Your task to perform on an android device: turn pop-ups off in chrome Image 0: 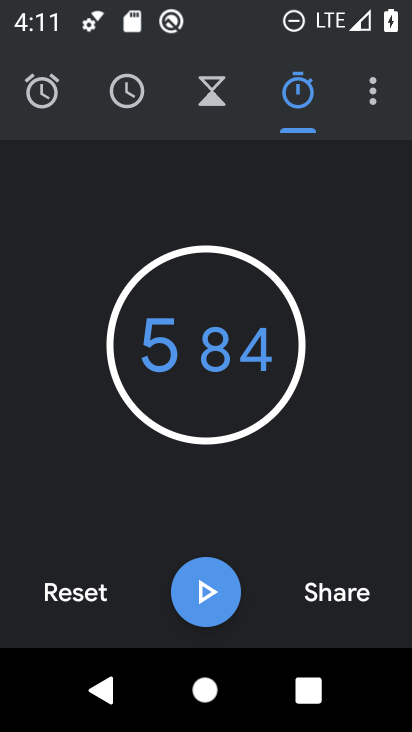
Step 0: press home button
Your task to perform on an android device: turn pop-ups off in chrome Image 1: 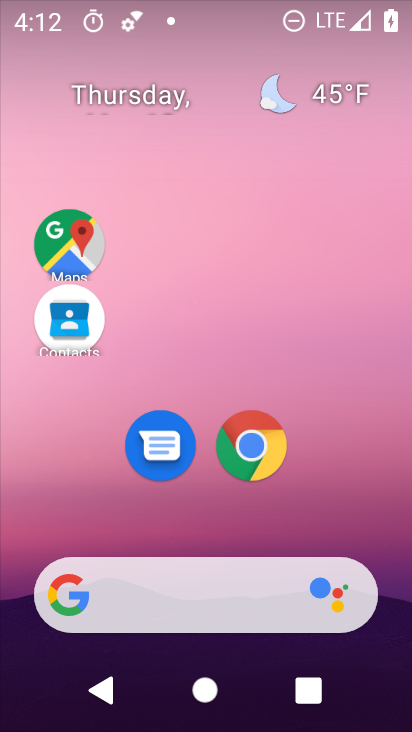
Step 1: click (249, 445)
Your task to perform on an android device: turn pop-ups off in chrome Image 2: 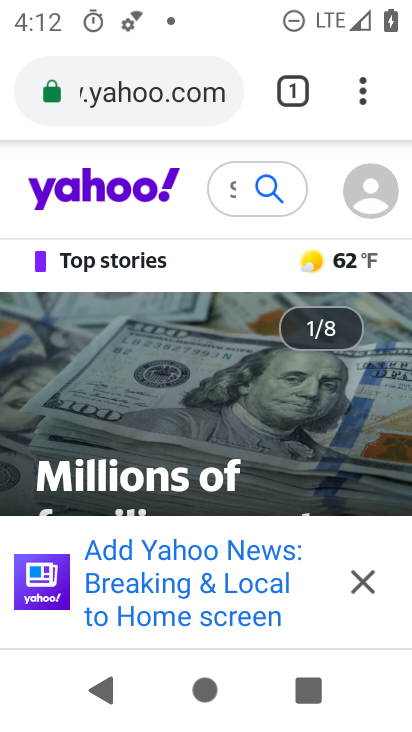
Step 2: click (362, 91)
Your task to perform on an android device: turn pop-ups off in chrome Image 3: 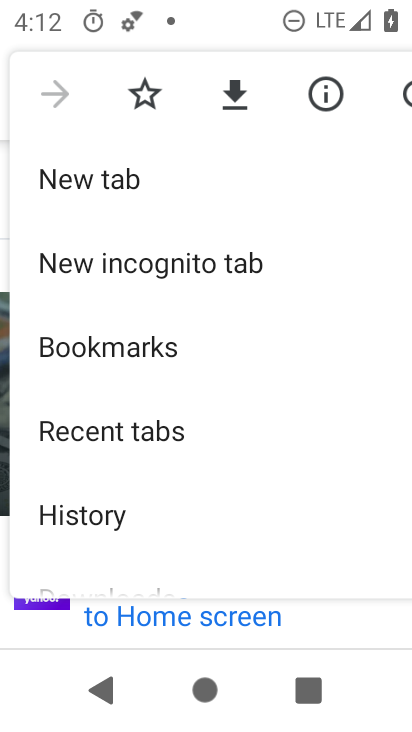
Step 3: drag from (122, 444) to (187, 260)
Your task to perform on an android device: turn pop-ups off in chrome Image 4: 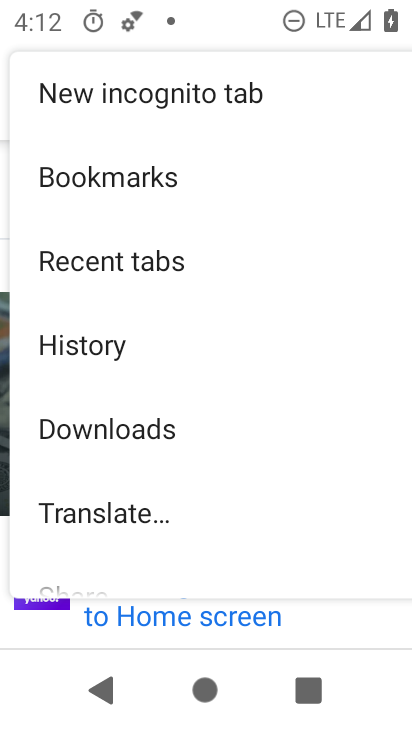
Step 4: drag from (98, 460) to (149, 344)
Your task to perform on an android device: turn pop-ups off in chrome Image 5: 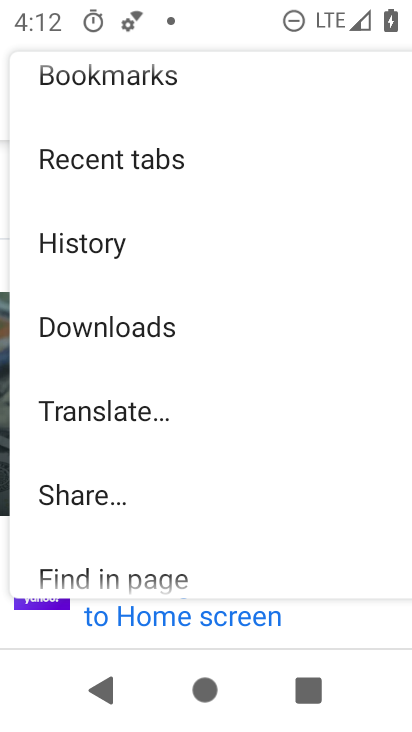
Step 5: drag from (80, 452) to (175, 339)
Your task to perform on an android device: turn pop-ups off in chrome Image 6: 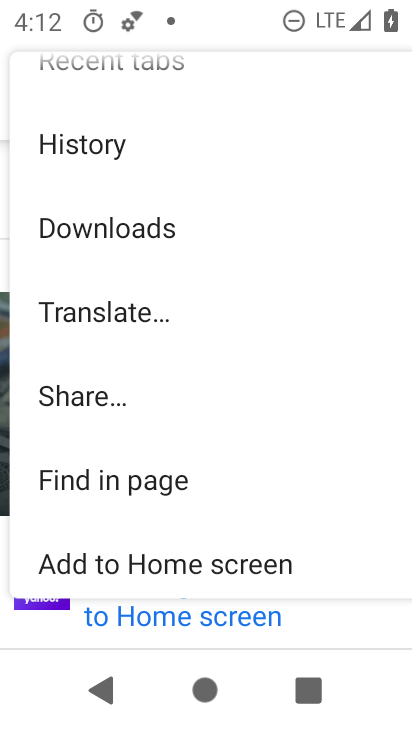
Step 6: drag from (83, 511) to (148, 346)
Your task to perform on an android device: turn pop-ups off in chrome Image 7: 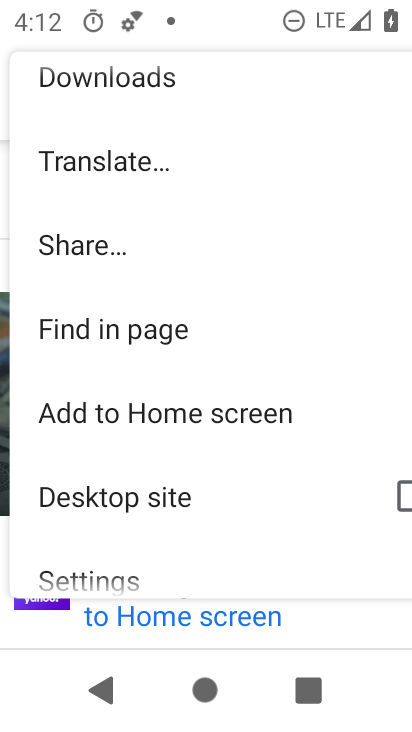
Step 7: drag from (92, 463) to (176, 310)
Your task to perform on an android device: turn pop-ups off in chrome Image 8: 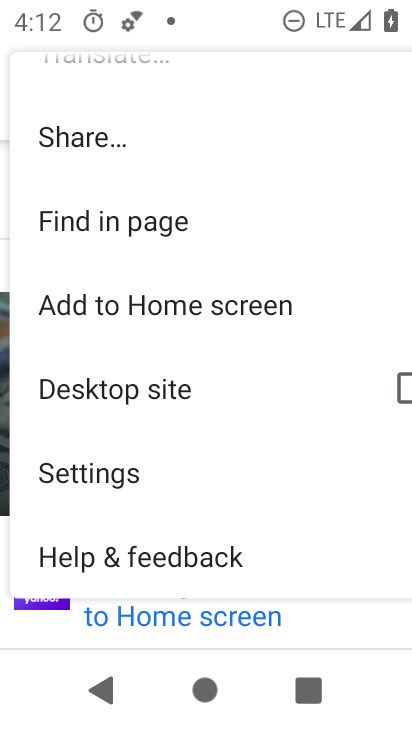
Step 8: click (113, 468)
Your task to perform on an android device: turn pop-ups off in chrome Image 9: 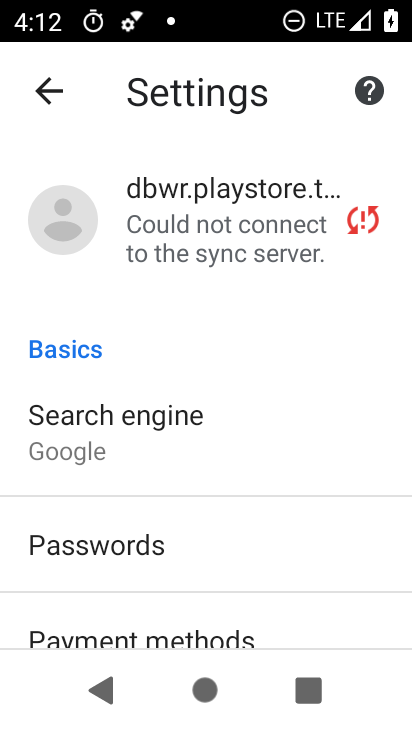
Step 9: drag from (153, 445) to (212, 334)
Your task to perform on an android device: turn pop-ups off in chrome Image 10: 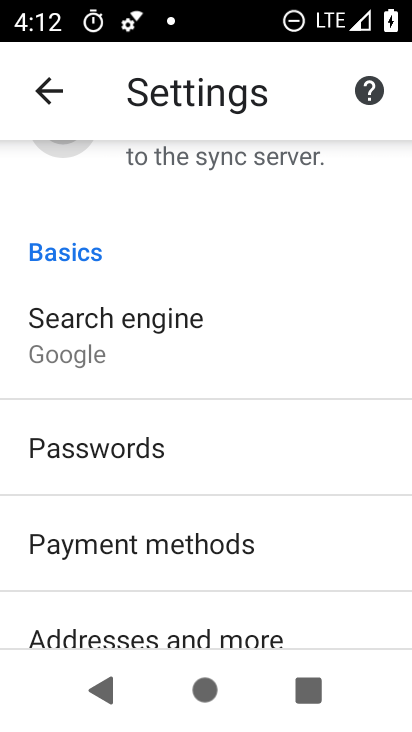
Step 10: drag from (125, 511) to (201, 371)
Your task to perform on an android device: turn pop-ups off in chrome Image 11: 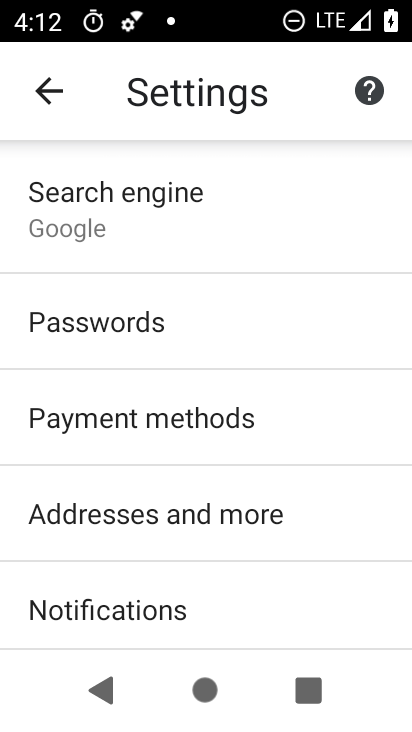
Step 11: drag from (121, 562) to (203, 394)
Your task to perform on an android device: turn pop-ups off in chrome Image 12: 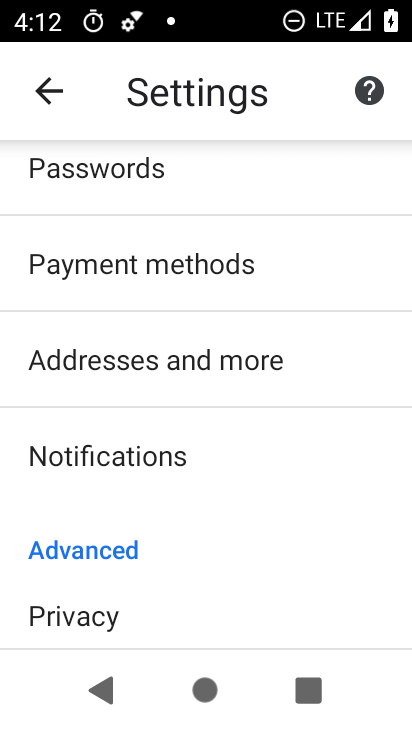
Step 12: drag from (110, 520) to (194, 410)
Your task to perform on an android device: turn pop-ups off in chrome Image 13: 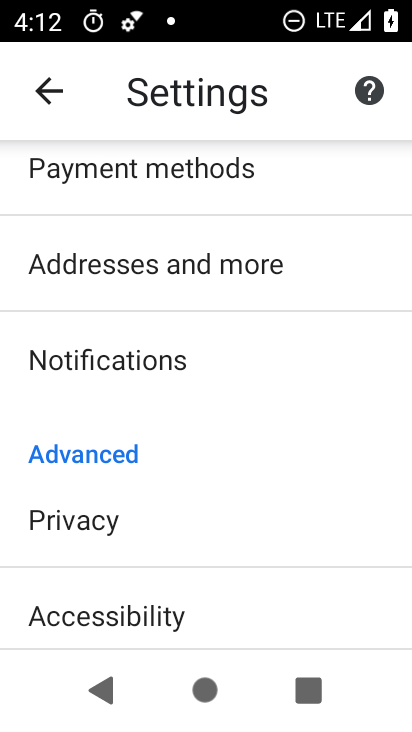
Step 13: drag from (112, 574) to (235, 422)
Your task to perform on an android device: turn pop-ups off in chrome Image 14: 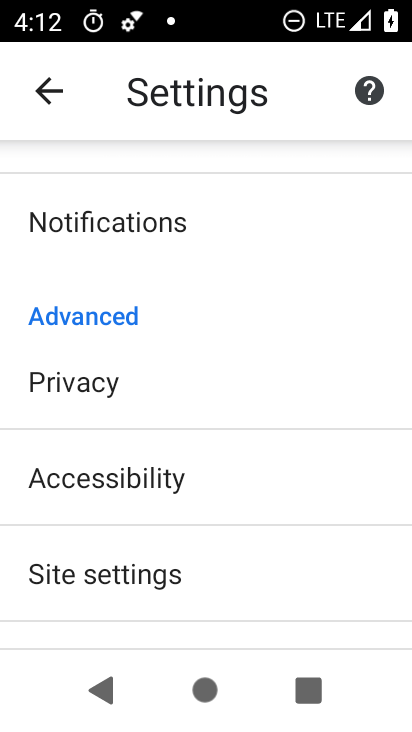
Step 14: drag from (110, 558) to (220, 437)
Your task to perform on an android device: turn pop-ups off in chrome Image 15: 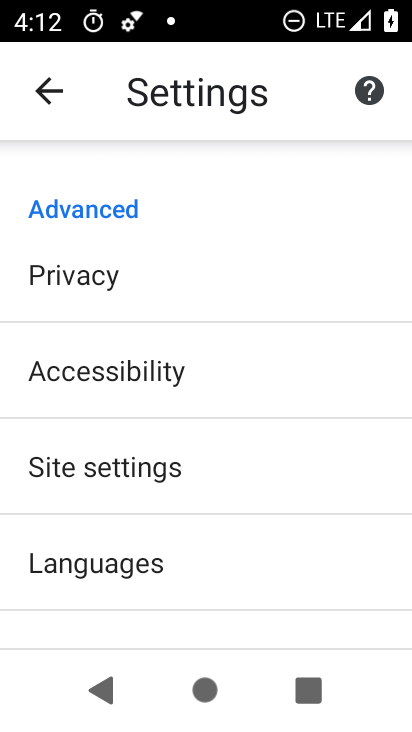
Step 15: drag from (149, 524) to (241, 421)
Your task to perform on an android device: turn pop-ups off in chrome Image 16: 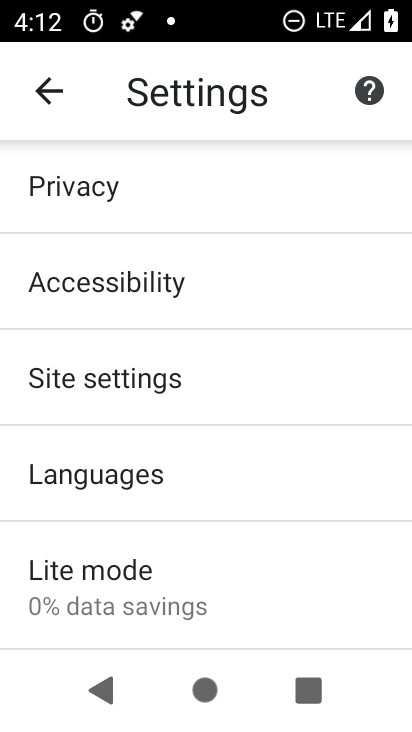
Step 16: drag from (202, 597) to (264, 483)
Your task to perform on an android device: turn pop-ups off in chrome Image 17: 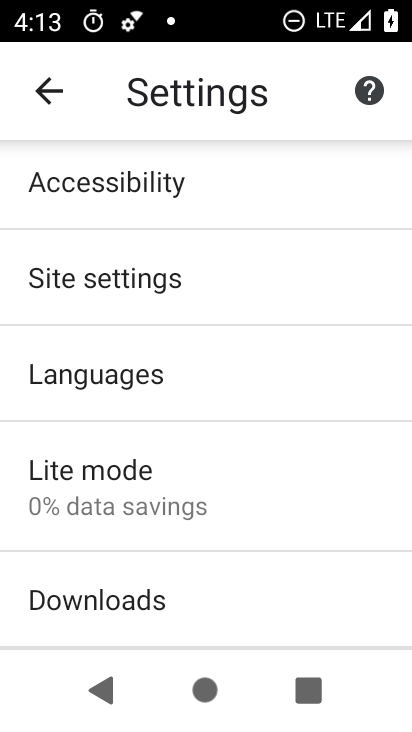
Step 17: click (139, 280)
Your task to perform on an android device: turn pop-ups off in chrome Image 18: 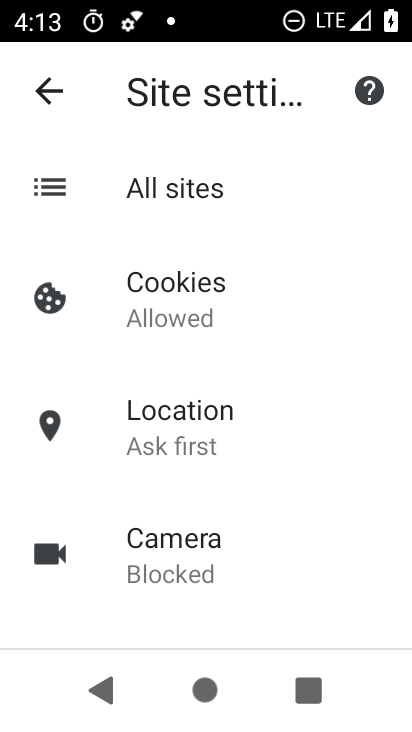
Step 18: drag from (184, 501) to (269, 369)
Your task to perform on an android device: turn pop-ups off in chrome Image 19: 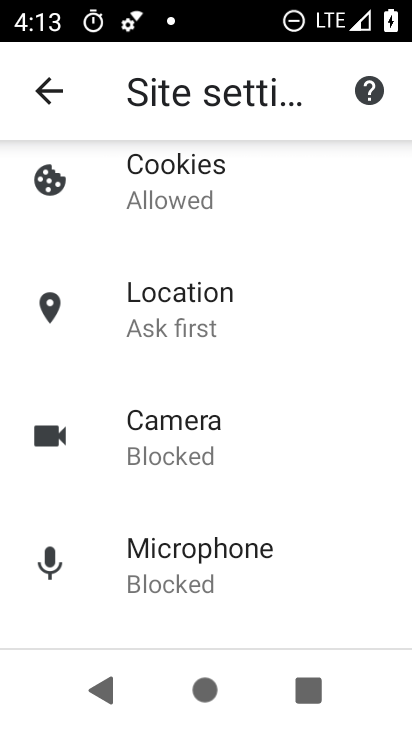
Step 19: drag from (194, 517) to (296, 376)
Your task to perform on an android device: turn pop-ups off in chrome Image 20: 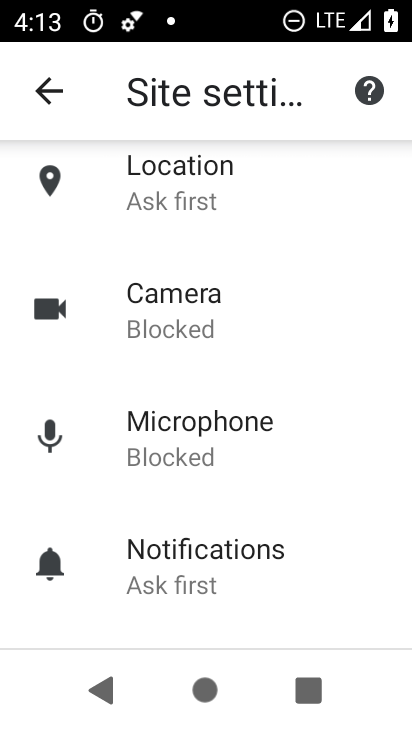
Step 20: drag from (187, 531) to (277, 381)
Your task to perform on an android device: turn pop-ups off in chrome Image 21: 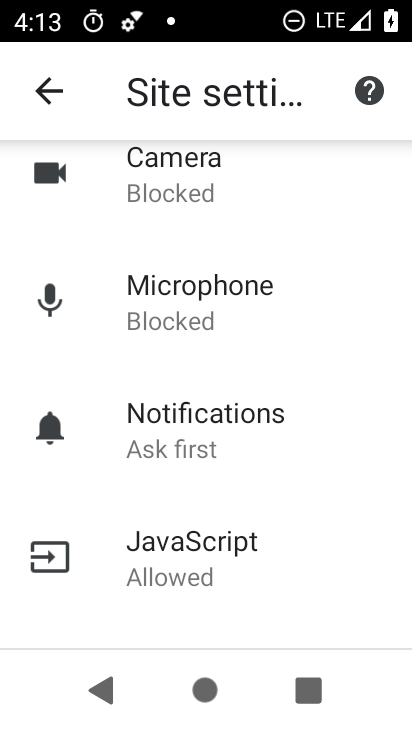
Step 21: drag from (217, 489) to (311, 349)
Your task to perform on an android device: turn pop-ups off in chrome Image 22: 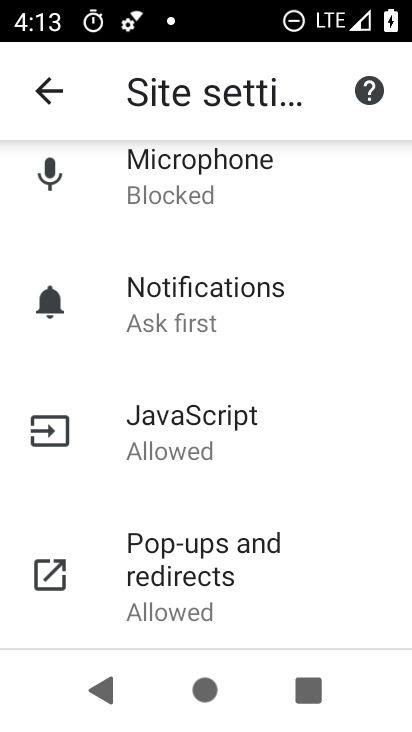
Step 22: drag from (187, 484) to (275, 337)
Your task to perform on an android device: turn pop-ups off in chrome Image 23: 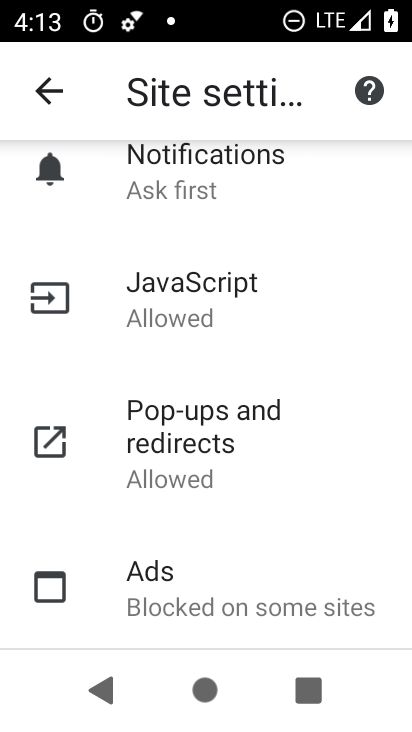
Step 23: click (211, 421)
Your task to perform on an android device: turn pop-ups off in chrome Image 24: 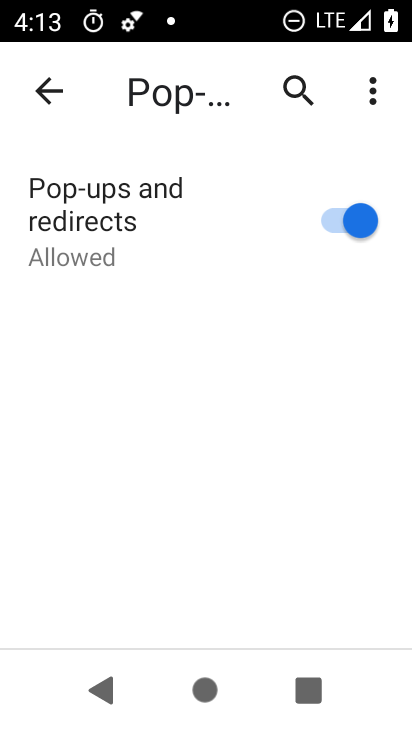
Step 24: click (354, 210)
Your task to perform on an android device: turn pop-ups off in chrome Image 25: 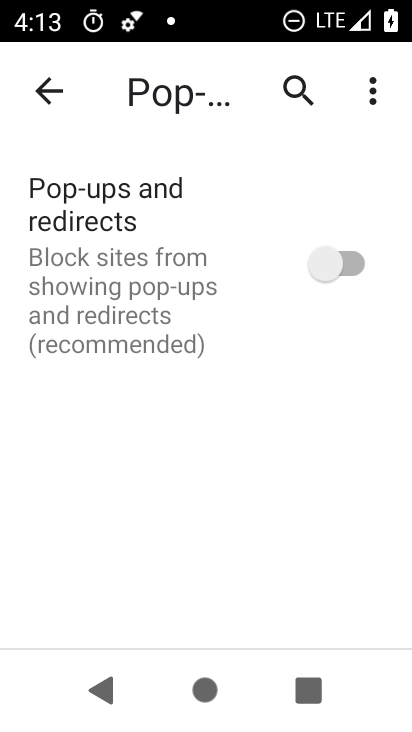
Step 25: task complete